Your task to perform on an android device: open app "Pinterest" (install if not already installed) Image 0: 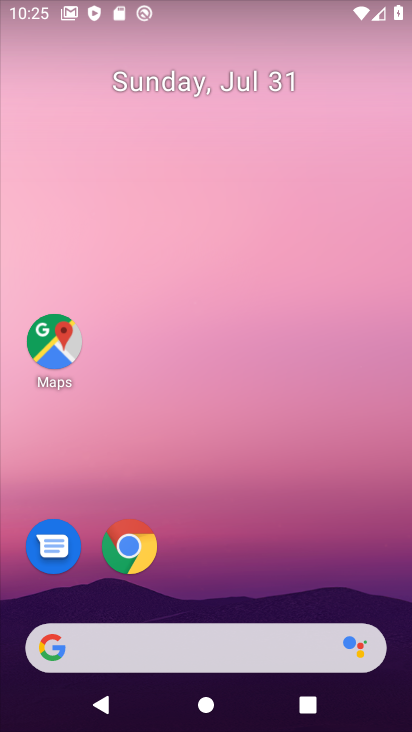
Step 0: drag from (266, 648) to (169, 0)
Your task to perform on an android device: open app "Pinterest" (install if not already installed) Image 1: 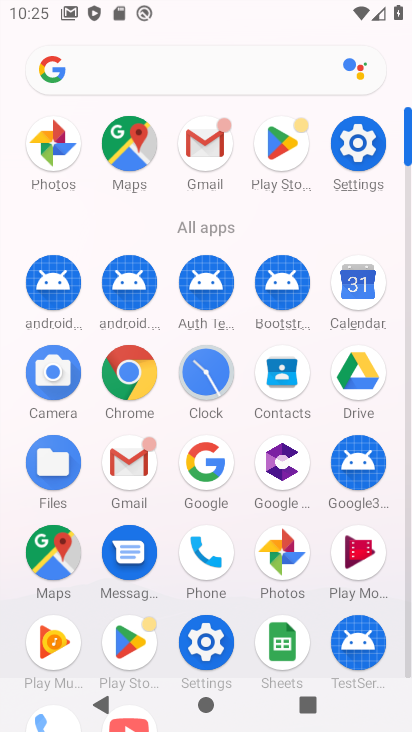
Step 1: click (271, 135)
Your task to perform on an android device: open app "Pinterest" (install if not already installed) Image 2: 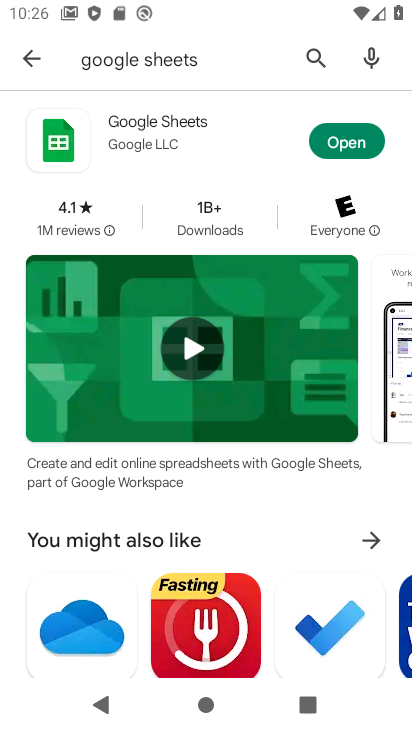
Step 2: click (319, 50)
Your task to perform on an android device: open app "Pinterest" (install if not already installed) Image 3: 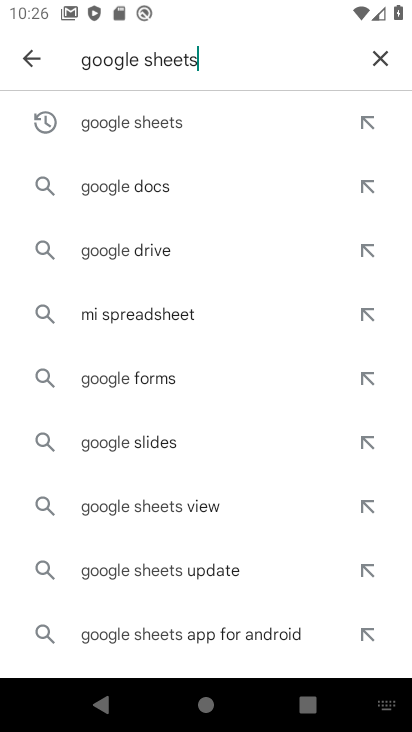
Step 3: click (378, 59)
Your task to perform on an android device: open app "Pinterest" (install if not already installed) Image 4: 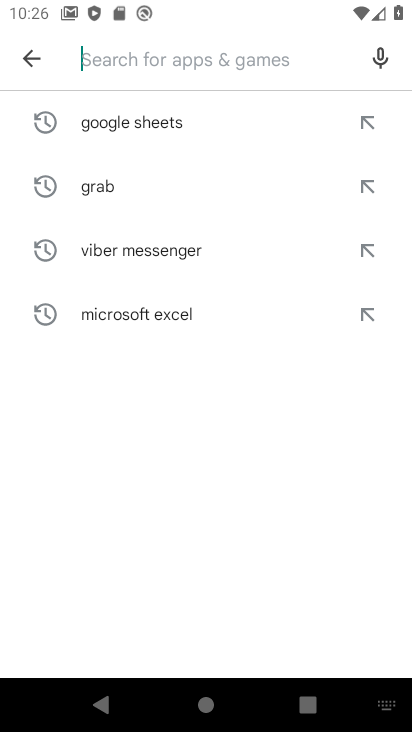
Step 4: type "pinterest"
Your task to perform on an android device: open app "Pinterest" (install if not already installed) Image 5: 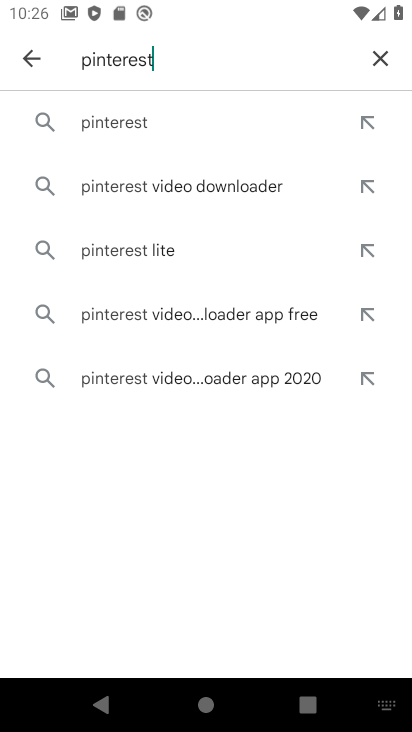
Step 5: click (147, 141)
Your task to perform on an android device: open app "Pinterest" (install if not already installed) Image 6: 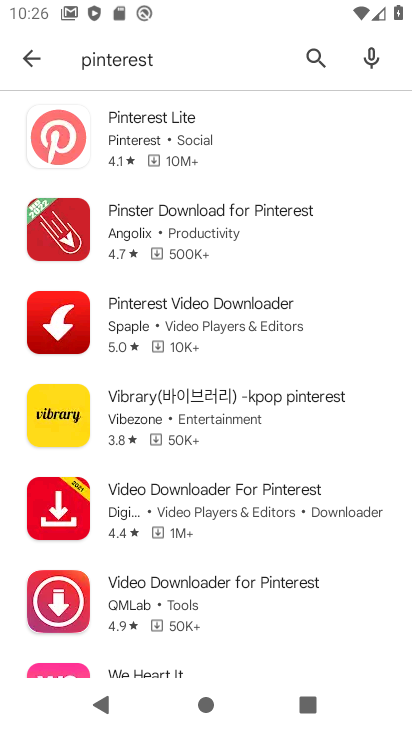
Step 6: task complete